Your task to perform on an android device: turn on the 12-hour format for clock Image 0: 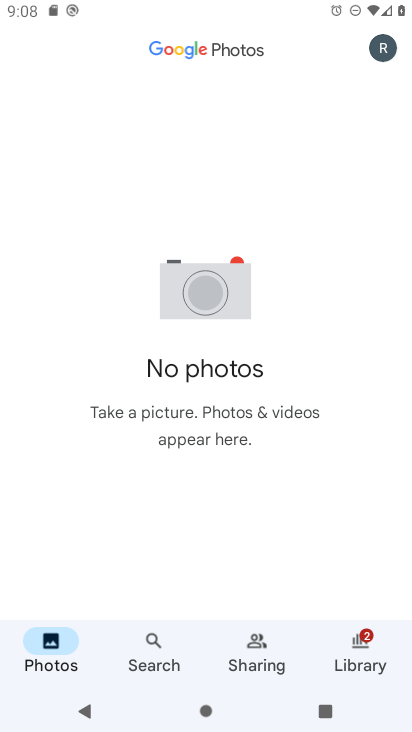
Step 0: press home button
Your task to perform on an android device: turn on the 12-hour format for clock Image 1: 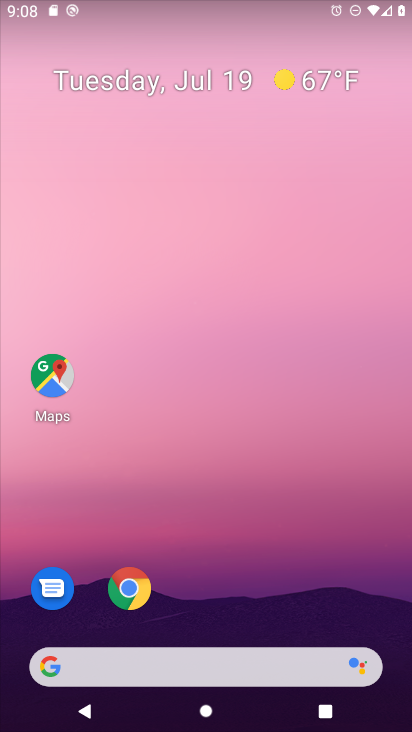
Step 1: drag from (244, 579) to (324, 116)
Your task to perform on an android device: turn on the 12-hour format for clock Image 2: 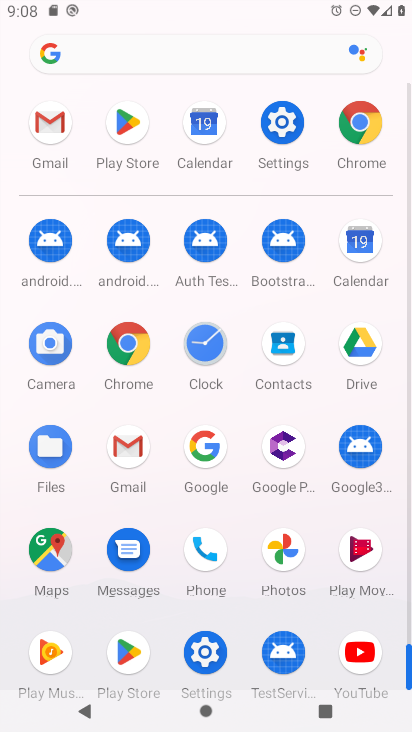
Step 2: click (190, 355)
Your task to perform on an android device: turn on the 12-hour format for clock Image 3: 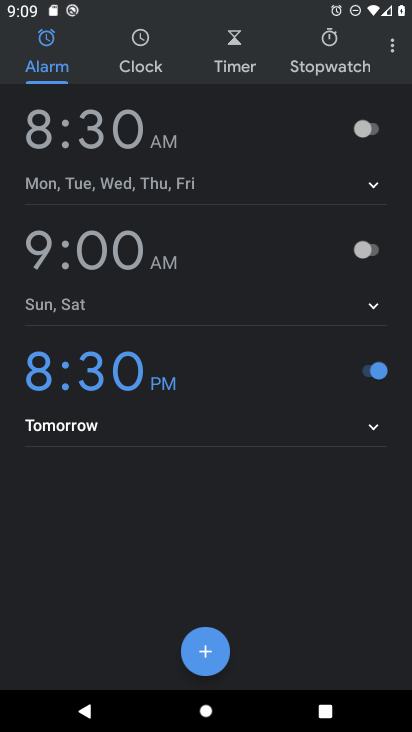
Step 3: click (393, 52)
Your task to perform on an android device: turn on the 12-hour format for clock Image 4: 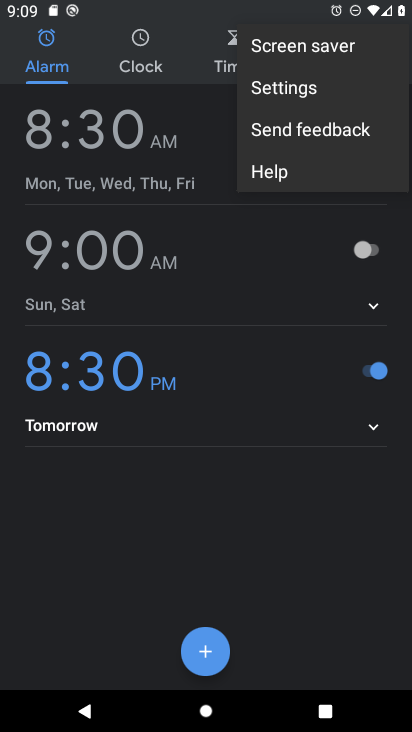
Step 4: click (311, 96)
Your task to perform on an android device: turn on the 12-hour format for clock Image 5: 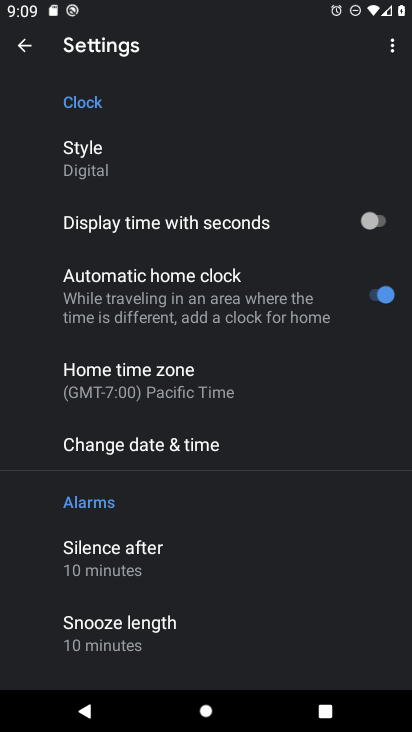
Step 5: click (215, 452)
Your task to perform on an android device: turn on the 12-hour format for clock Image 6: 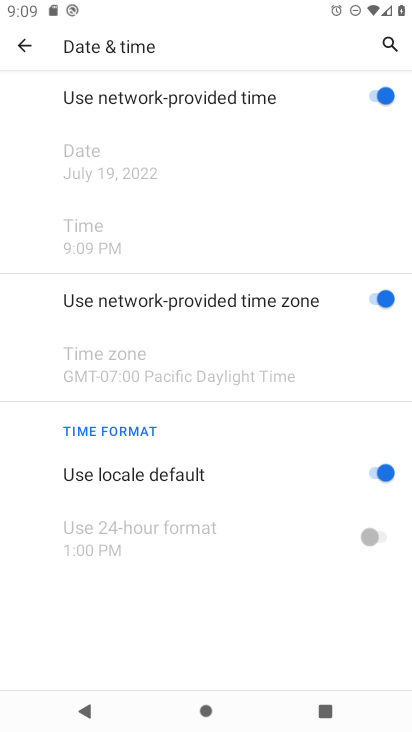
Step 6: task complete